Your task to perform on an android device: turn on location history Image 0: 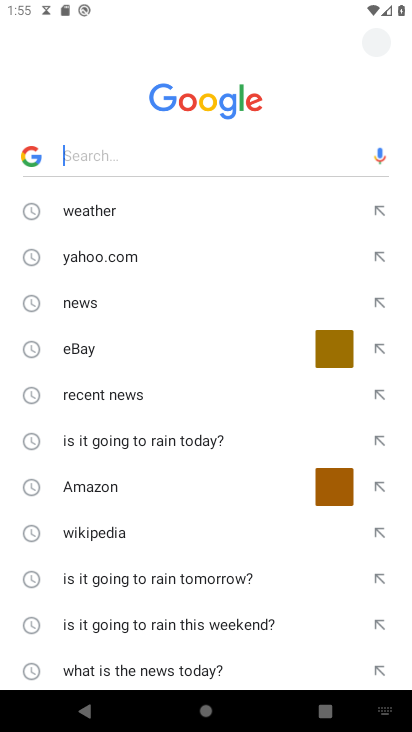
Step 0: press back button
Your task to perform on an android device: turn on location history Image 1: 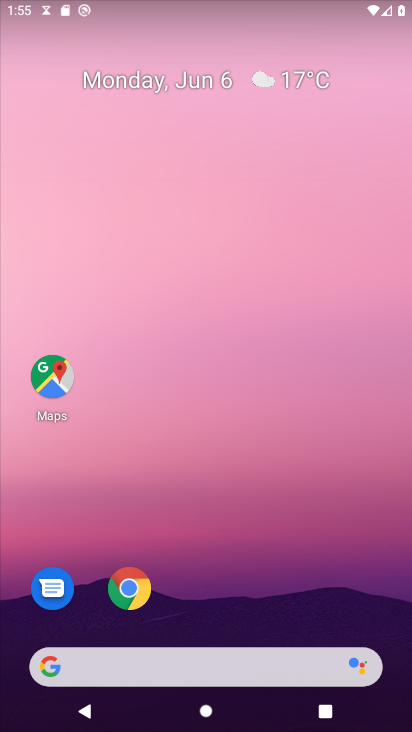
Step 1: drag from (184, 600) to (206, 270)
Your task to perform on an android device: turn on location history Image 2: 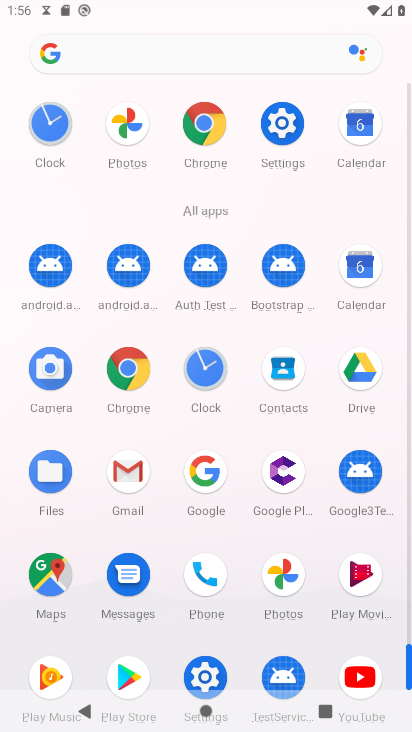
Step 2: click (284, 140)
Your task to perform on an android device: turn on location history Image 3: 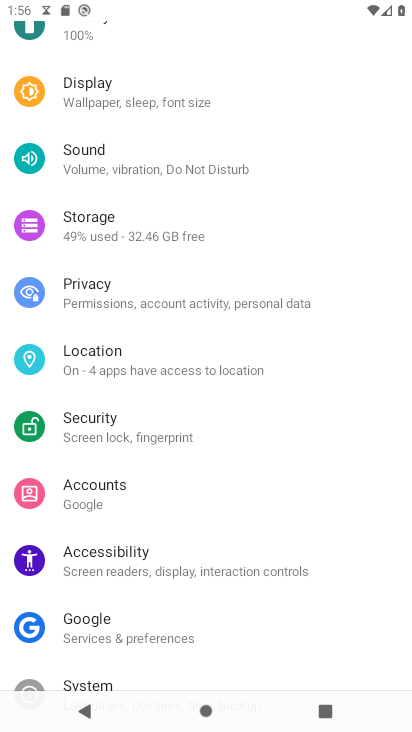
Step 3: click (91, 365)
Your task to perform on an android device: turn on location history Image 4: 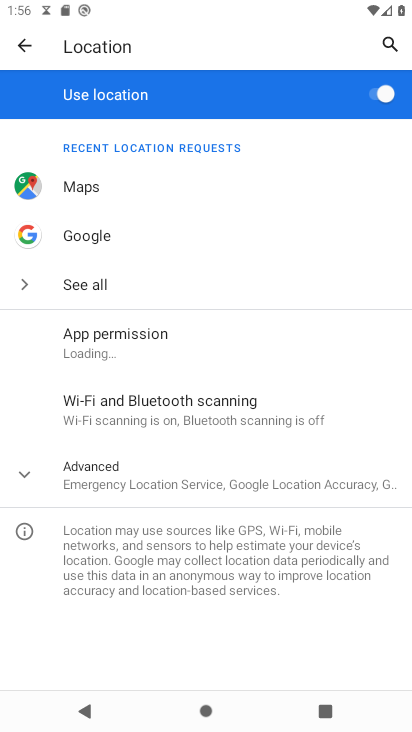
Step 4: click (117, 480)
Your task to perform on an android device: turn on location history Image 5: 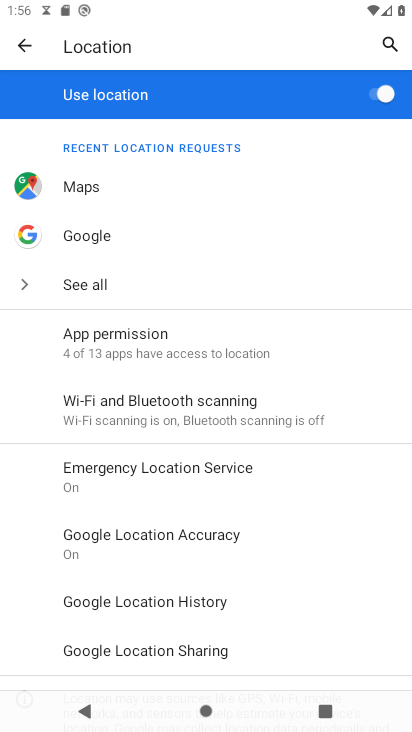
Step 5: click (150, 609)
Your task to perform on an android device: turn on location history Image 6: 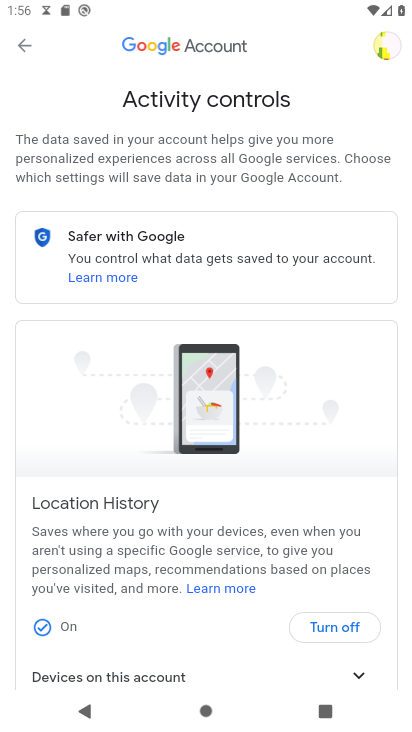
Step 6: click (326, 627)
Your task to perform on an android device: turn on location history Image 7: 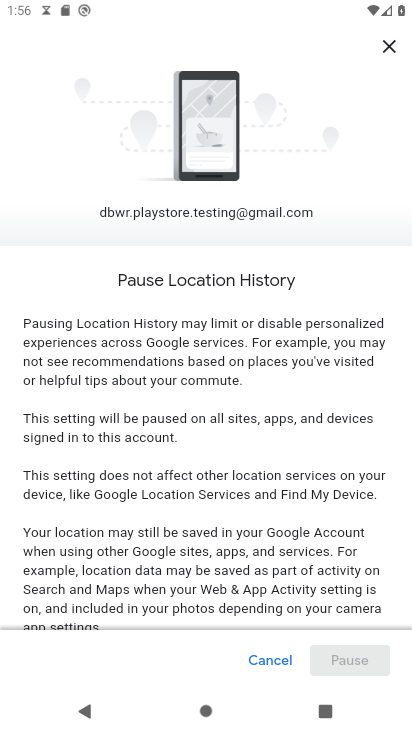
Step 7: drag from (300, 608) to (325, 246)
Your task to perform on an android device: turn on location history Image 8: 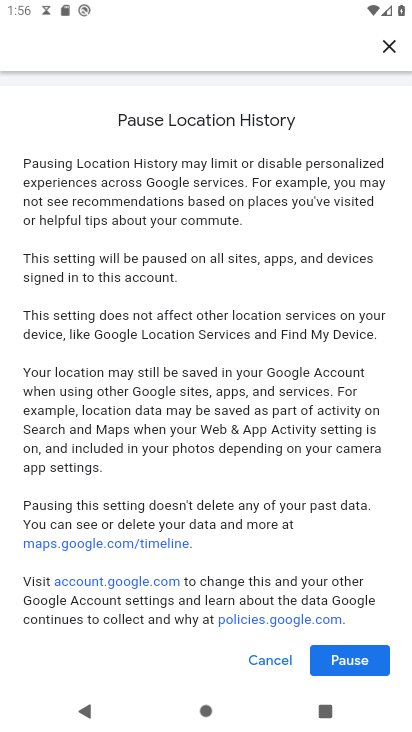
Step 8: click (353, 668)
Your task to perform on an android device: turn on location history Image 9: 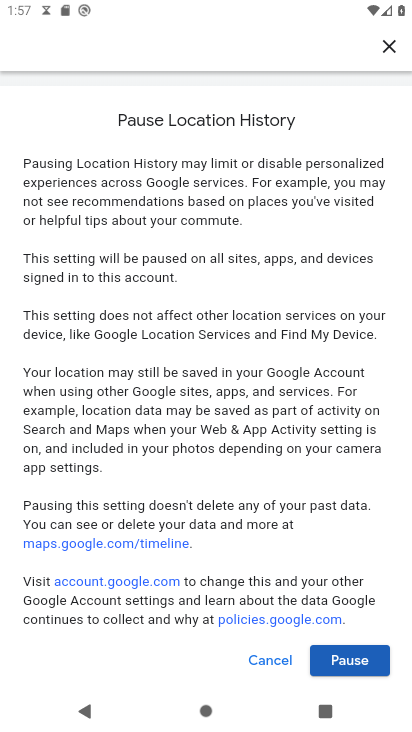
Step 9: click (353, 668)
Your task to perform on an android device: turn on location history Image 10: 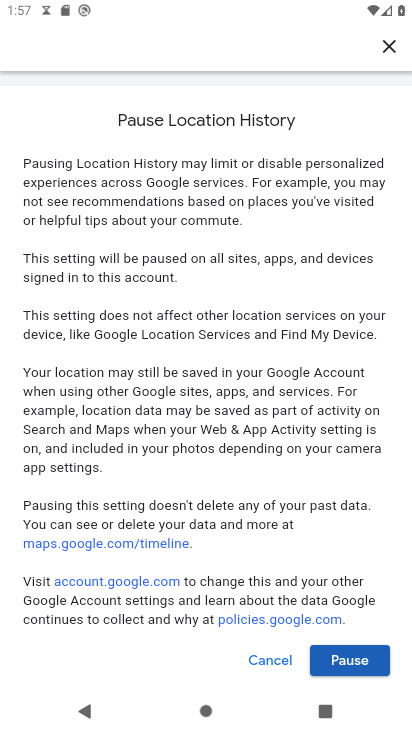
Step 10: click (353, 668)
Your task to perform on an android device: turn on location history Image 11: 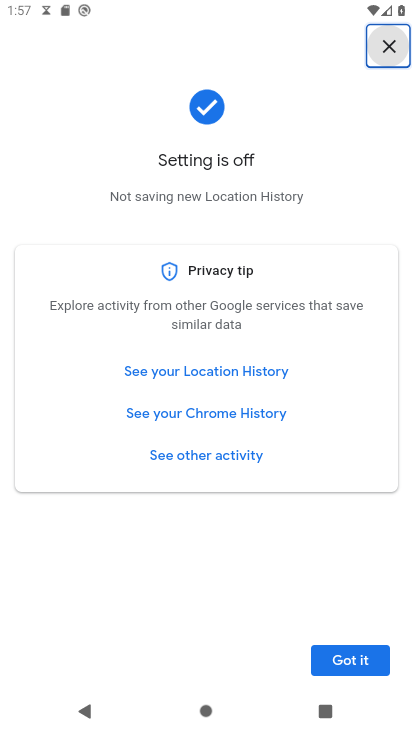
Step 11: click (353, 668)
Your task to perform on an android device: turn on location history Image 12: 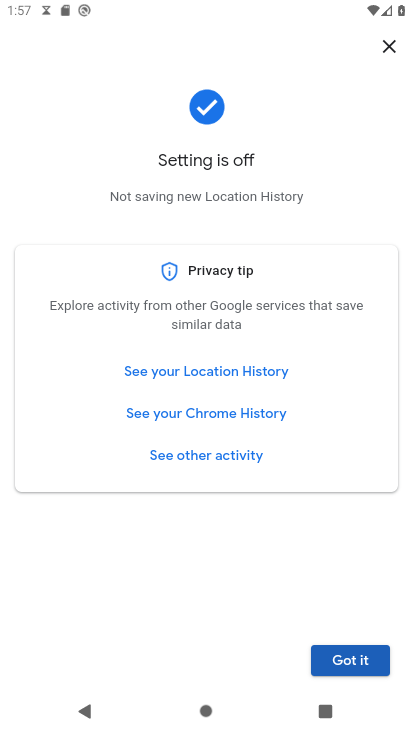
Step 12: click (353, 668)
Your task to perform on an android device: turn on location history Image 13: 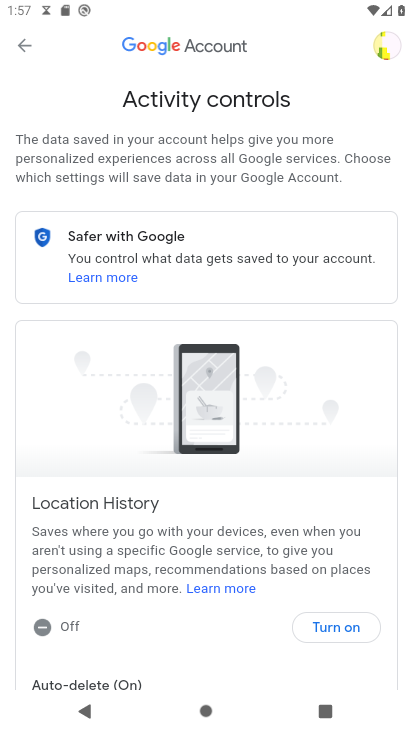
Step 13: task complete